Your task to perform on an android device: Open settings on Google Maps Image 0: 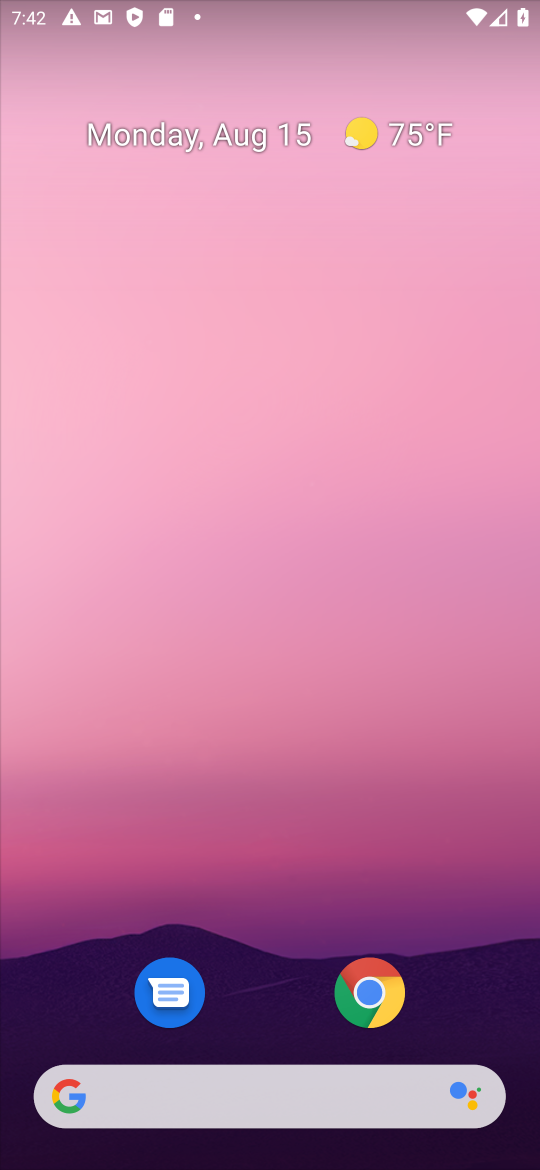
Step 0: drag from (243, 872) to (239, 129)
Your task to perform on an android device: Open settings on Google Maps Image 1: 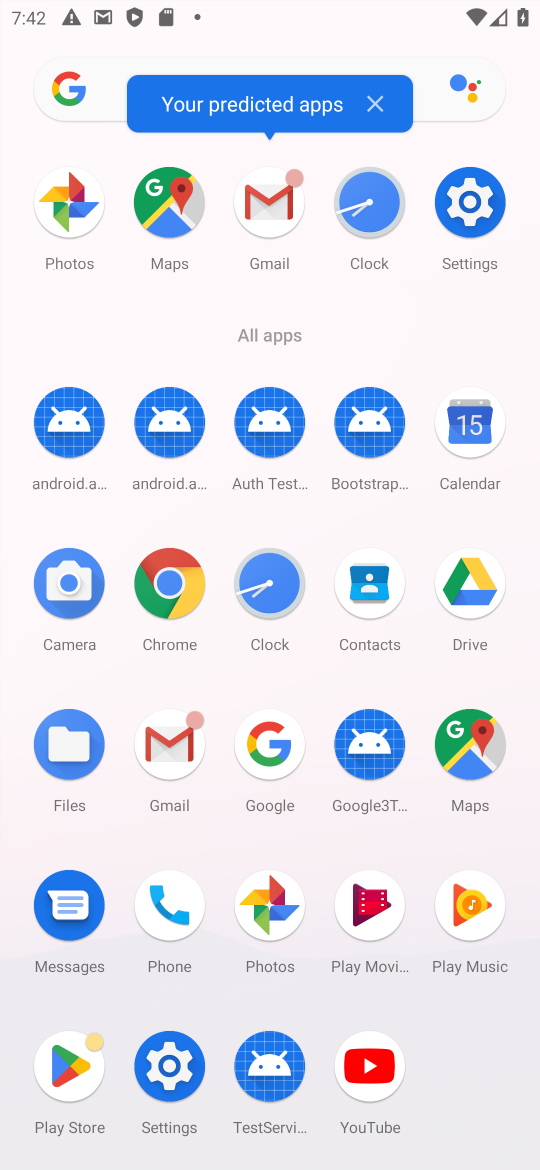
Step 1: click (467, 760)
Your task to perform on an android device: Open settings on Google Maps Image 2: 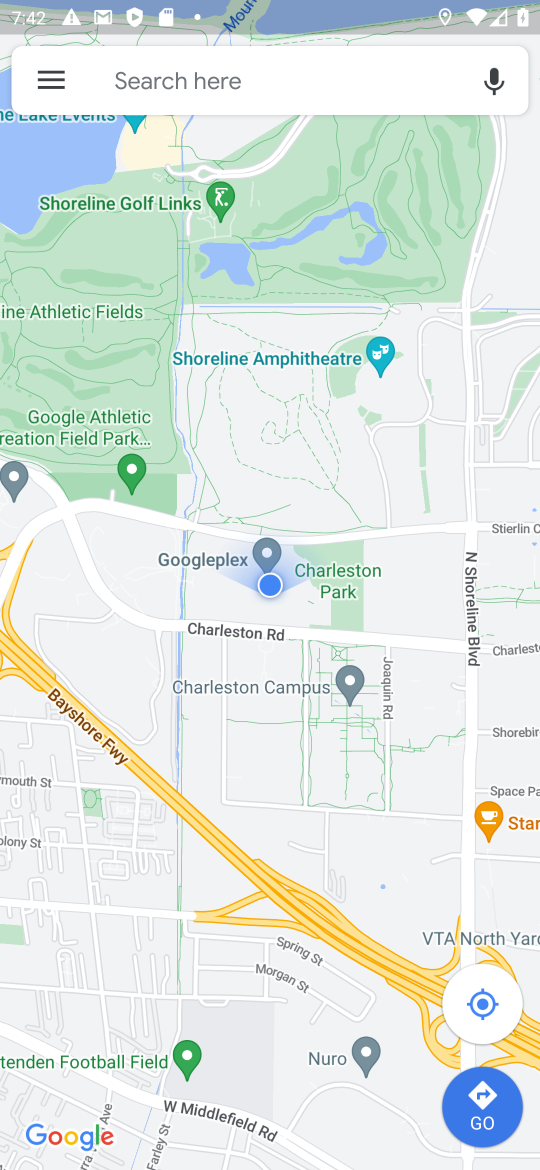
Step 2: click (51, 78)
Your task to perform on an android device: Open settings on Google Maps Image 3: 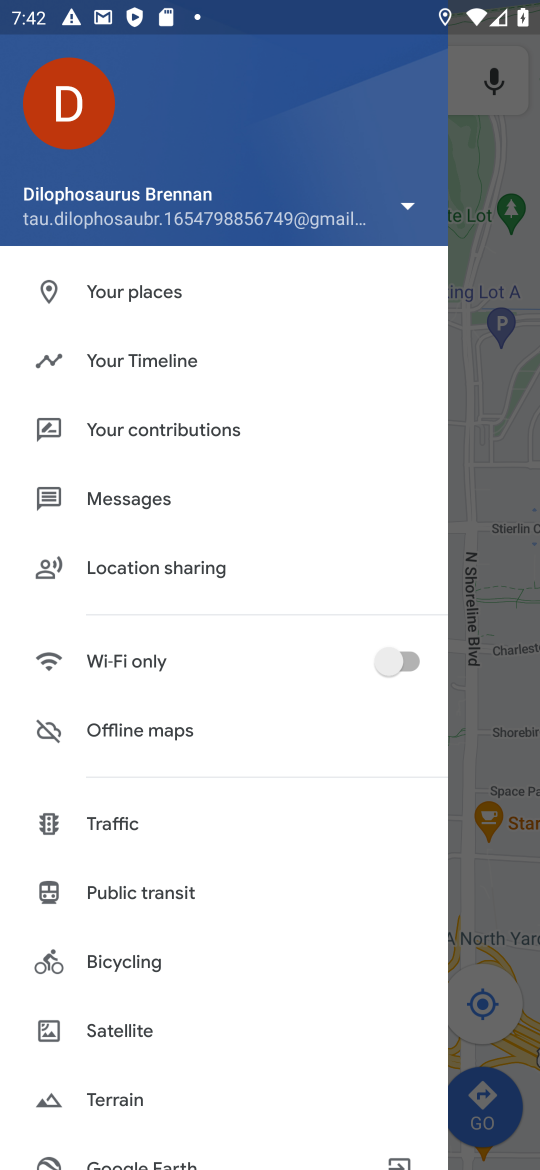
Step 3: drag from (171, 1003) to (130, 381)
Your task to perform on an android device: Open settings on Google Maps Image 4: 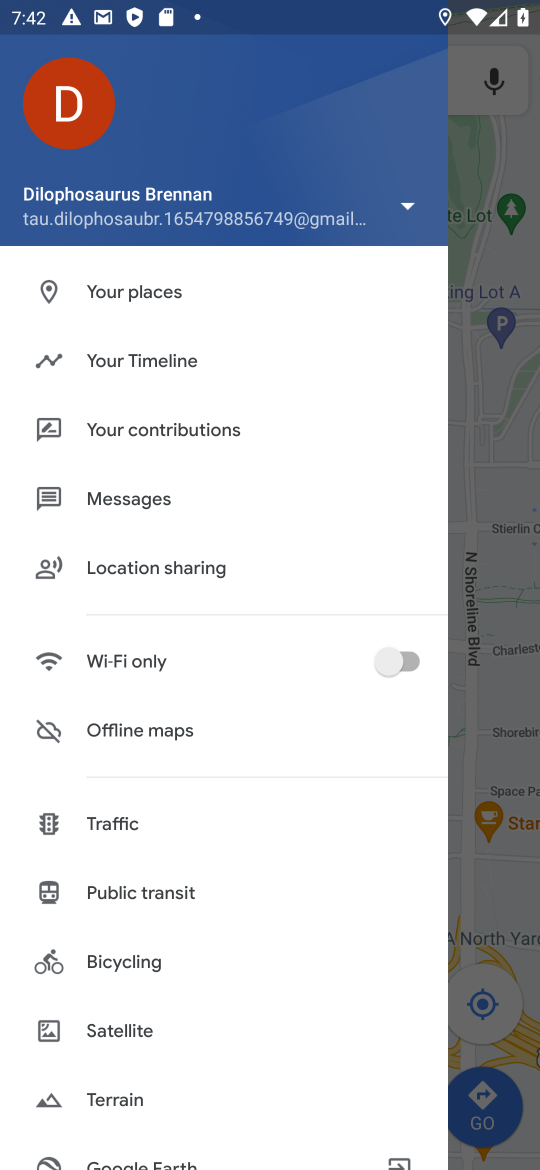
Step 4: drag from (216, 999) to (297, 238)
Your task to perform on an android device: Open settings on Google Maps Image 5: 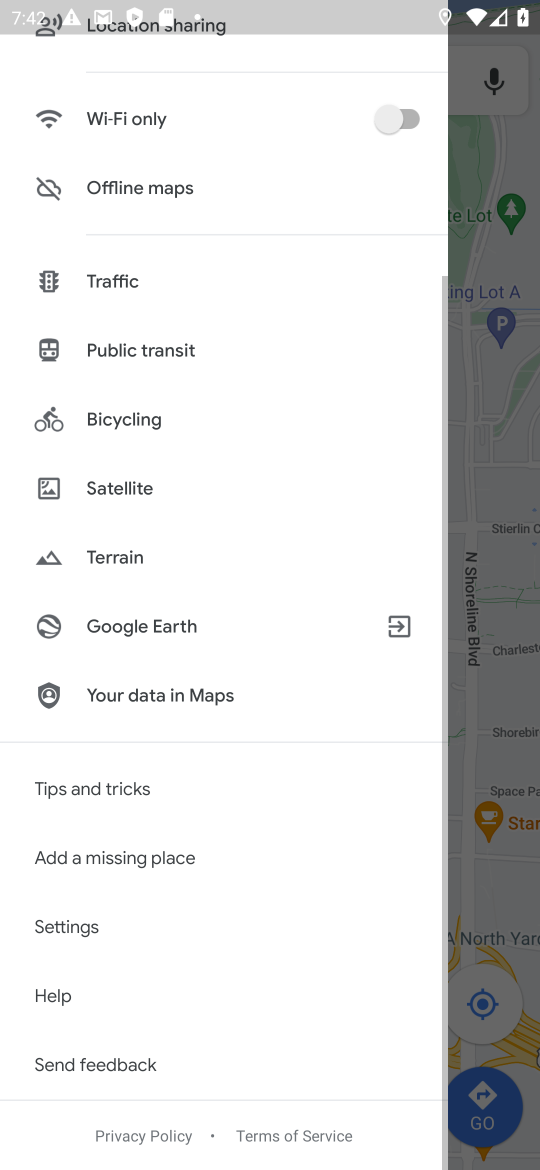
Step 5: click (80, 923)
Your task to perform on an android device: Open settings on Google Maps Image 6: 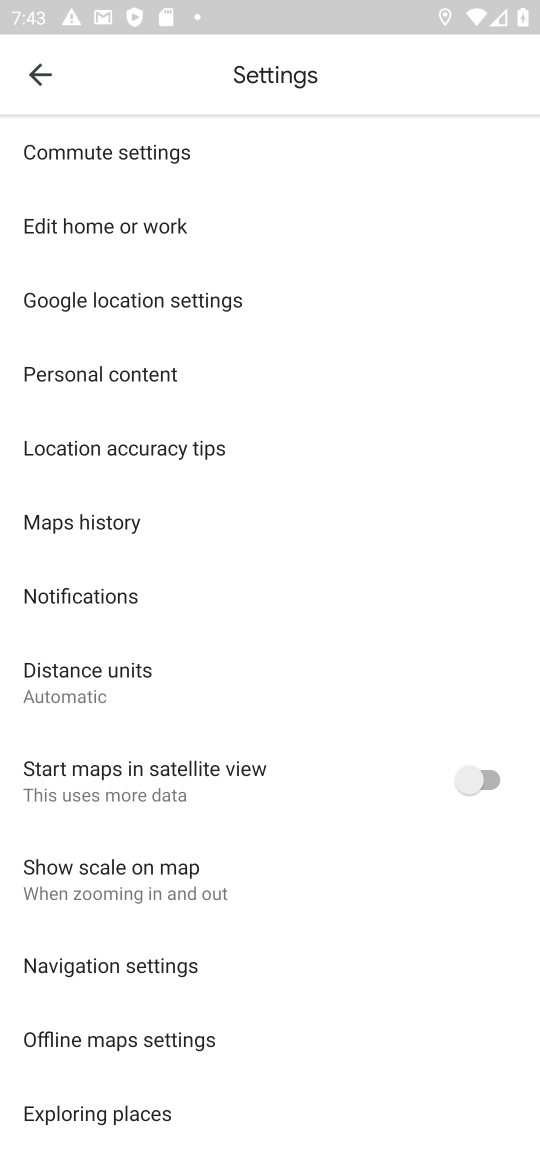
Step 6: task complete